Your task to perform on an android device: Empty the shopping cart on costco. Image 0: 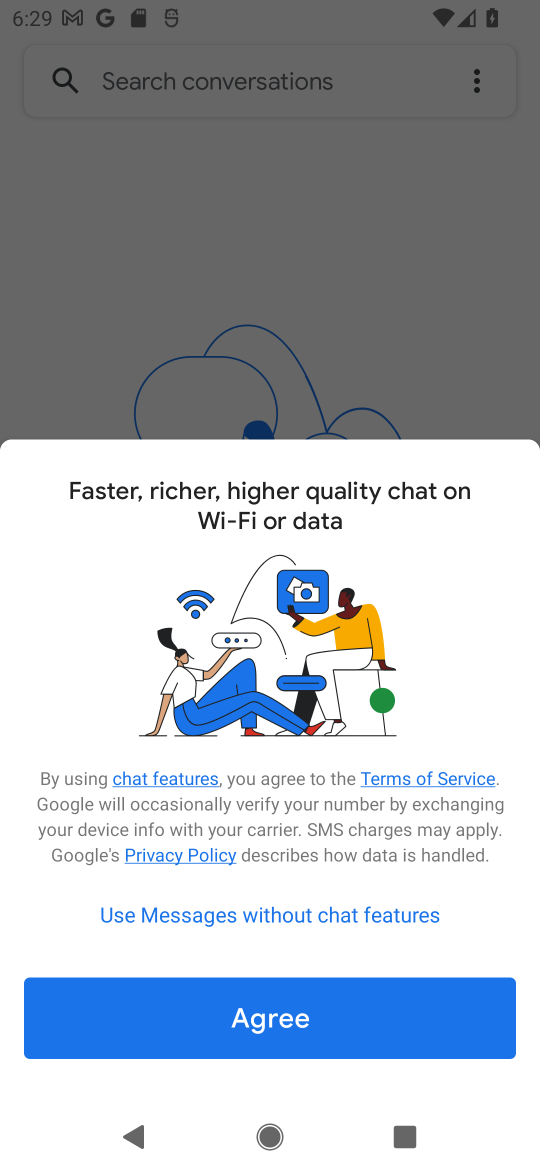
Step 0: task complete